Your task to perform on an android device: Go to calendar. Show me events next week Image 0: 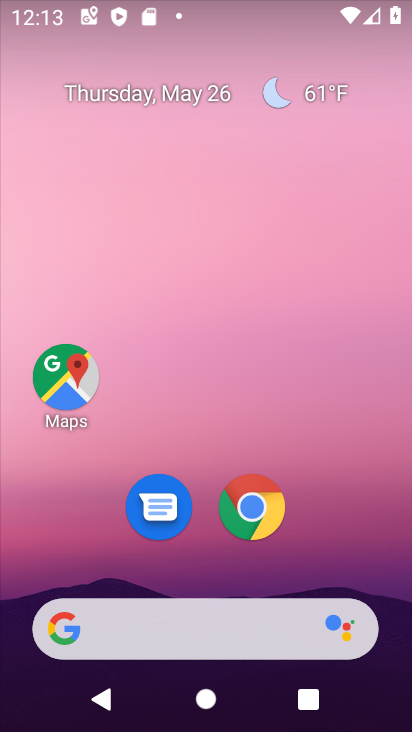
Step 0: drag from (396, 500) to (406, 134)
Your task to perform on an android device: Go to calendar. Show me events next week Image 1: 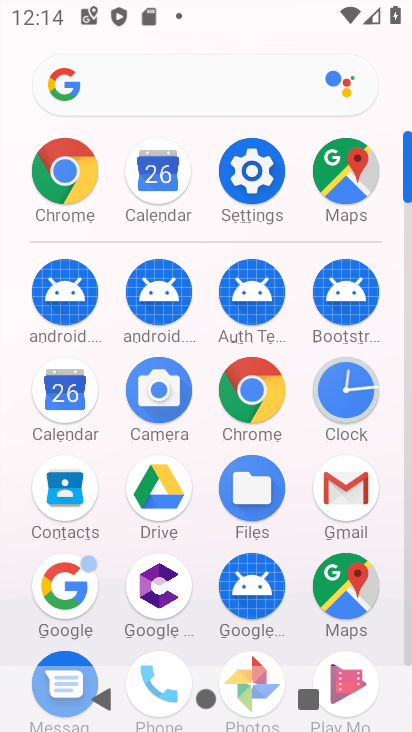
Step 1: click (181, 259)
Your task to perform on an android device: Go to calendar. Show me events next week Image 2: 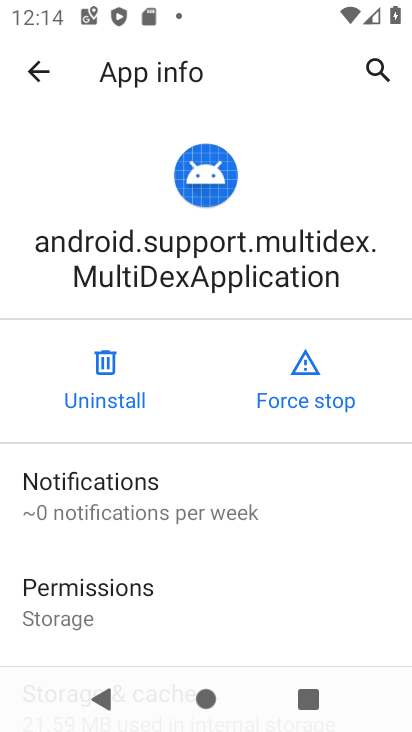
Step 2: click (44, 74)
Your task to perform on an android device: Go to calendar. Show me events next week Image 3: 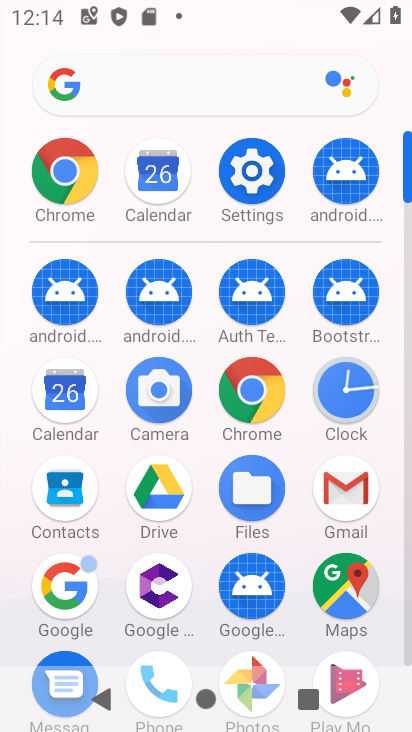
Step 3: click (166, 180)
Your task to perform on an android device: Go to calendar. Show me events next week Image 4: 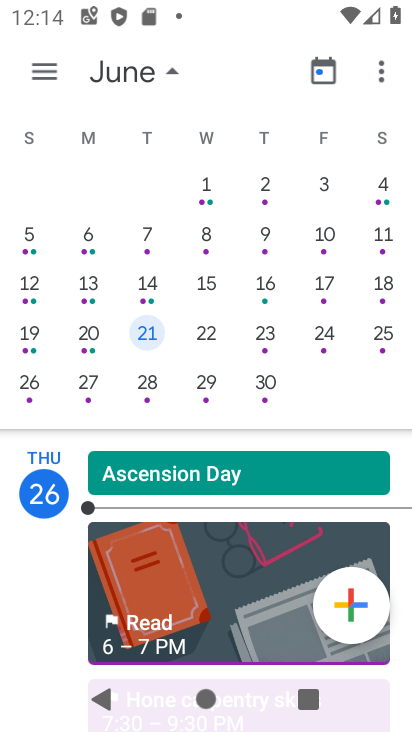
Step 4: task complete